Your task to perform on an android device: toggle show notifications on the lock screen Image 0: 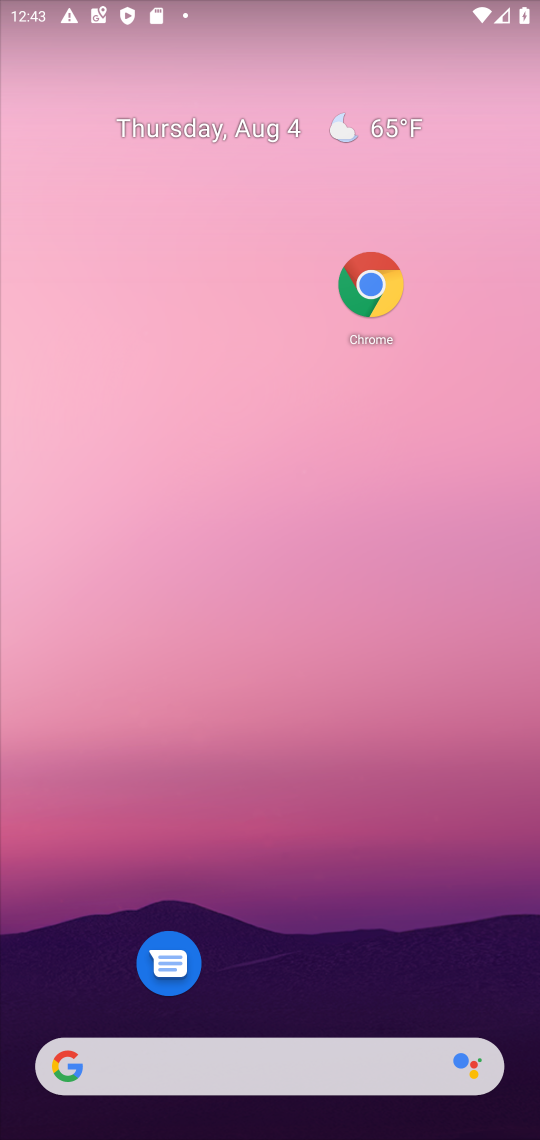
Step 0: drag from (262, 1031) to (235, 211)
Your task to perform on an android device: toggle show notifications on the lock screen Image 1: 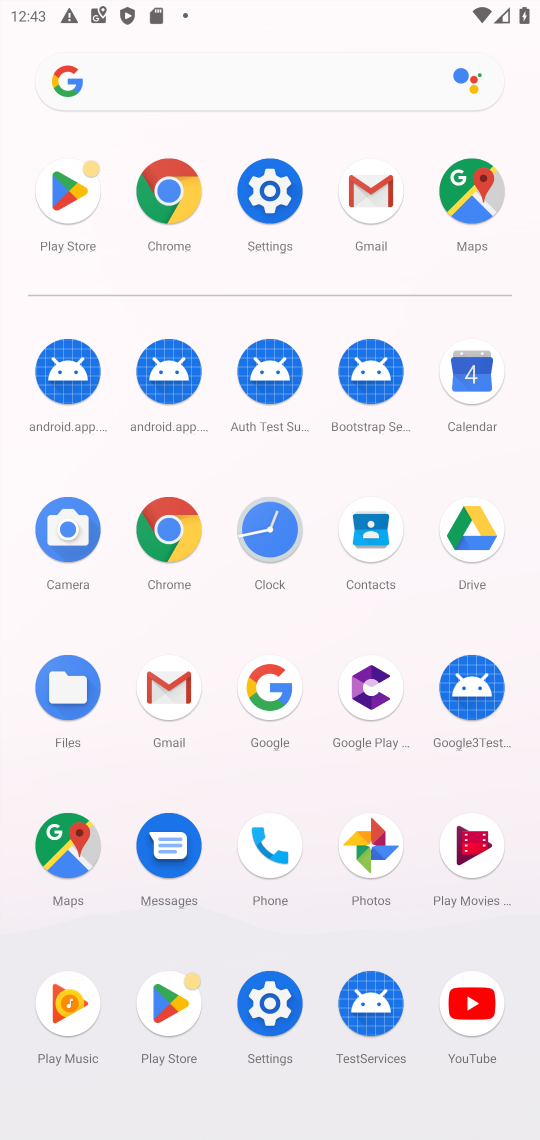
Step 1: click (266, 189)
Your task to perform on an android device: toggle show notifications on the lock screen Image 2: 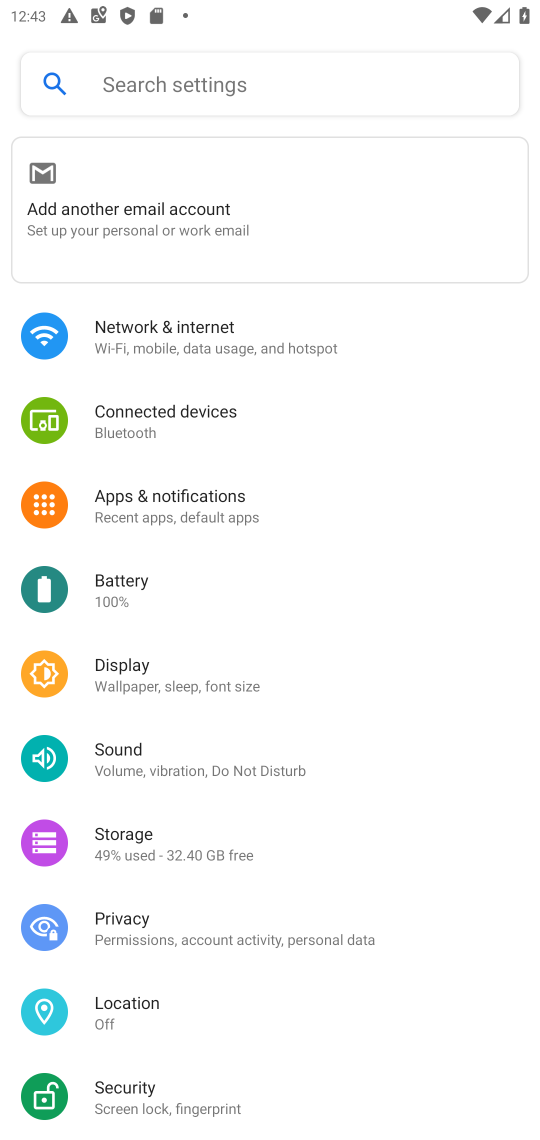
Step 2: click (177, 485)
Your task to perform on an android device: toggle show notifications on the lock screen Image 3: 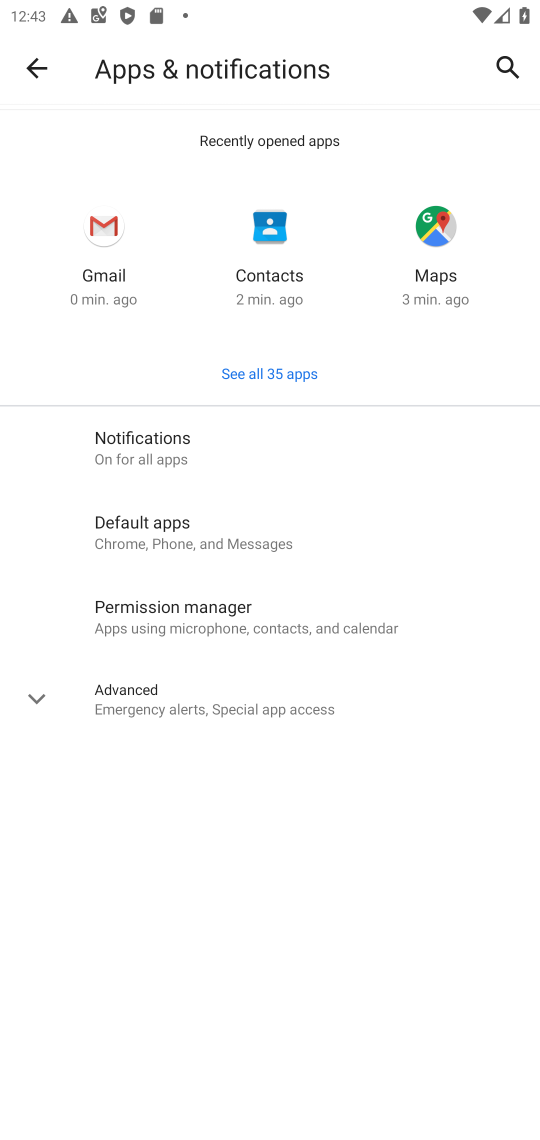
Step 3: click (230, 451)
Your task to perform on an android device: toggle show notifications on the lock screen Image 4: 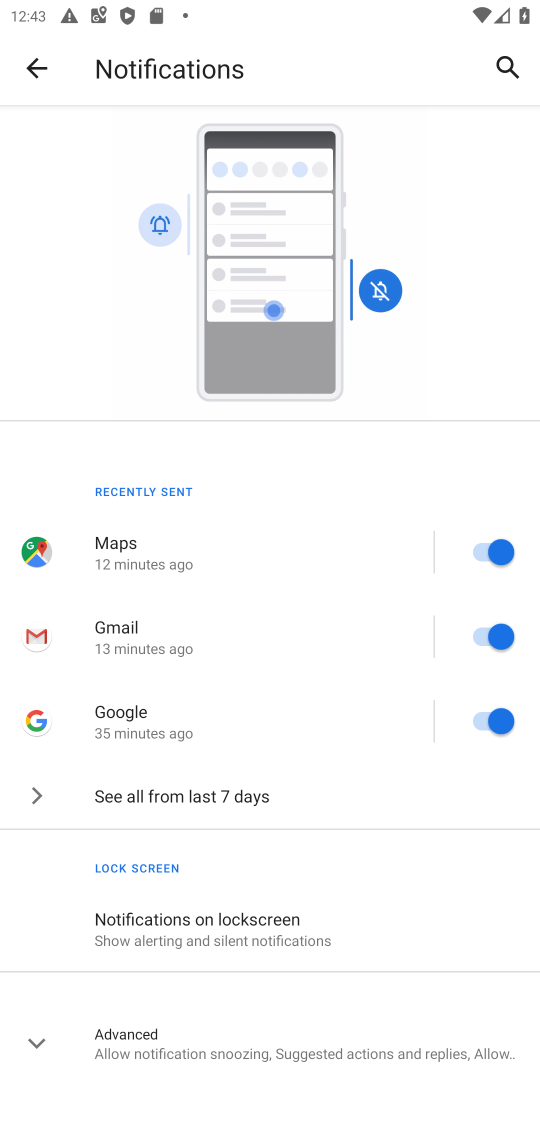
Step 4: click (270, 936)
Your task to perform on an android device: toggle show notifications on the lock screen Image 5: 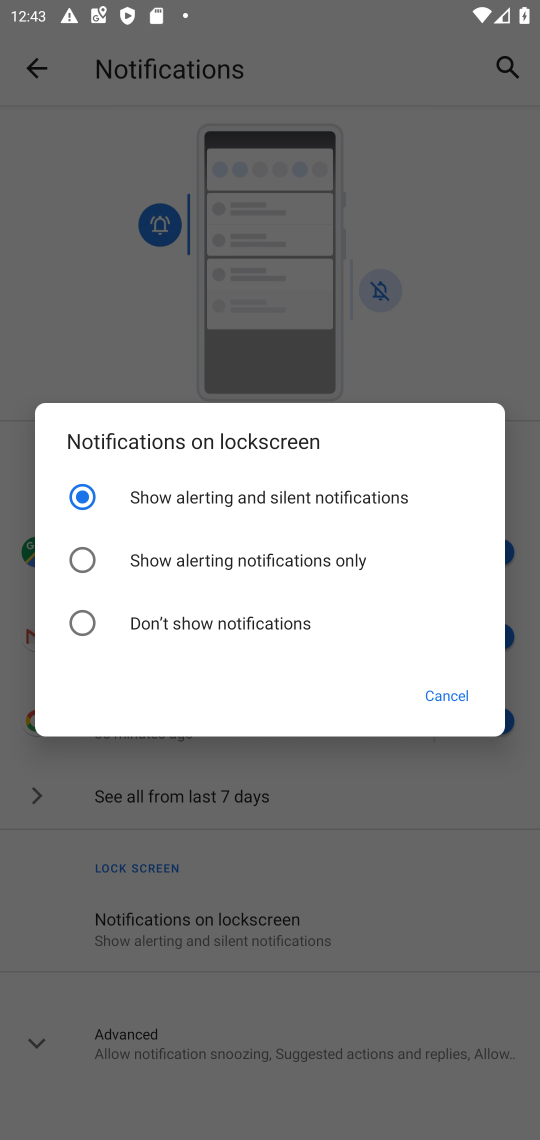
Step 5: click (102, 621)
Your task to perform on an android device: toggle show notifications on the lock screen Image 6: 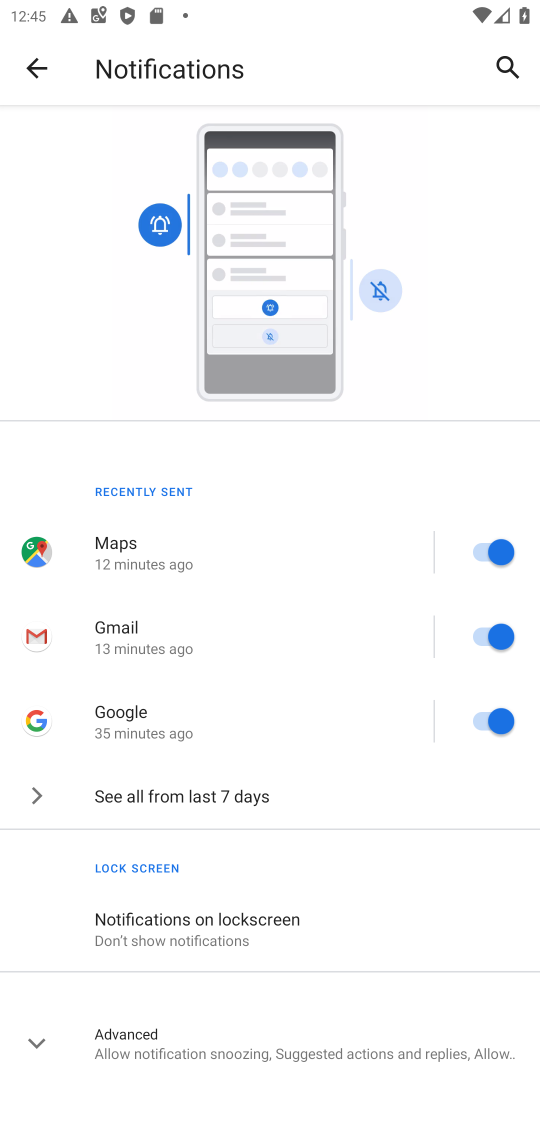
Step 6: task complete